Your task to perform on an android device: Set the phone to "Do not disturb". Image 0: 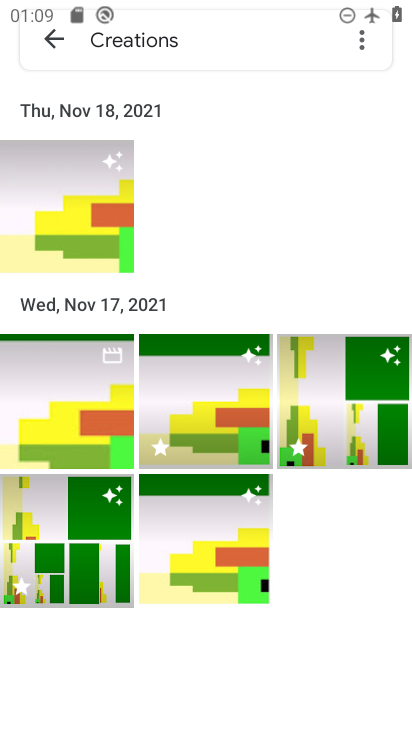
Step 0: press home button
Your task to perform on an android device: Set the phone to "Do not disturb". Image 1: 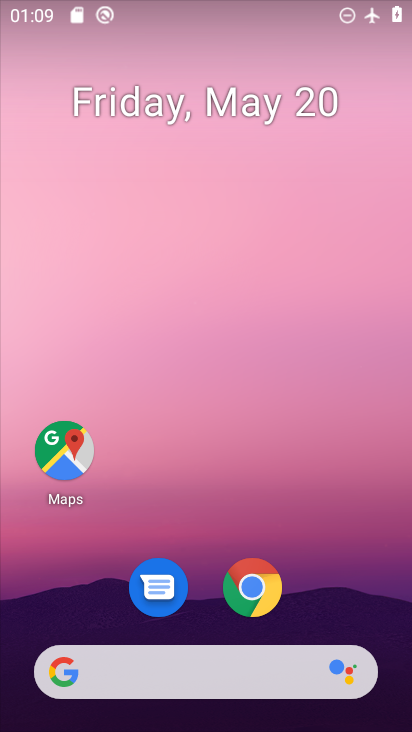
Step 1: drag from (378, 584) to (376, 195)
Your task to perform on an android device: Set the phone to "Do not disturb". Image 2: 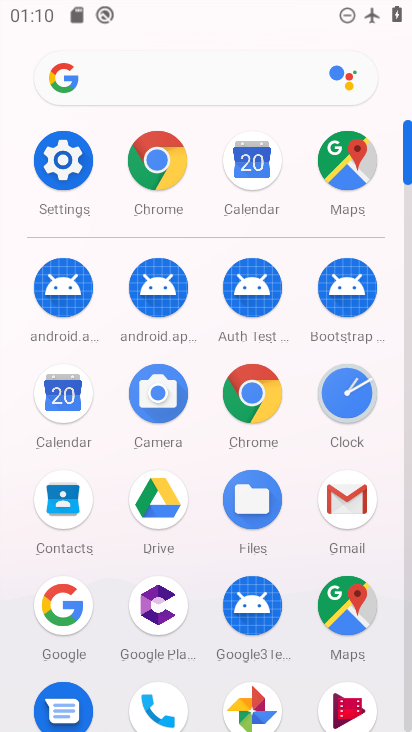
Step 2: click (63, 200)
Your task to perform on an android device: Set the phone to "Do not disturb". Image 3: 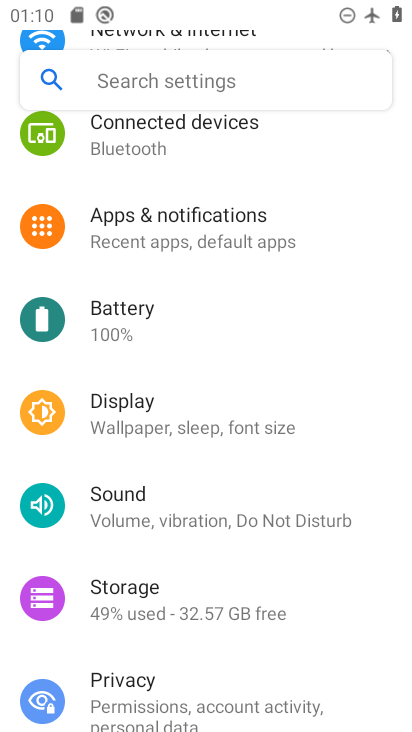
Step 3: drag from (367, 453) to (369, 325)
Your task to perform on an android device: Set the phone to "Do not disturb". Image 4: 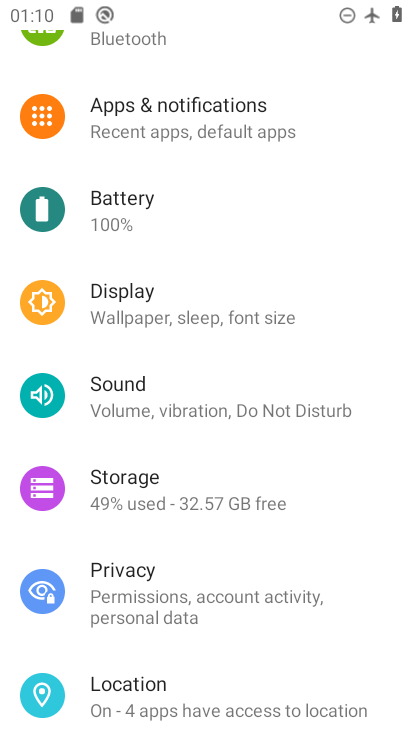
Step 4: drag from (373, 529) to (372, 423)
Your task to perform on an android device: Set the phone to "Do not disturb". Image 5: 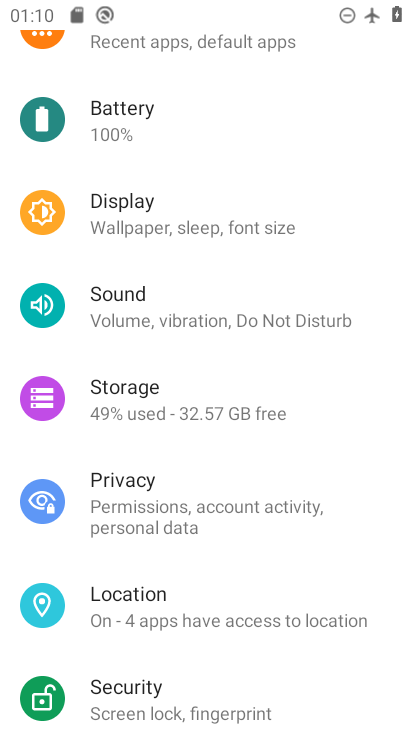
Step 5: drag from (373, 568) to (360, 374)
Your task to perform on an android device: Set the phone to "Do not disturb". Image 6: 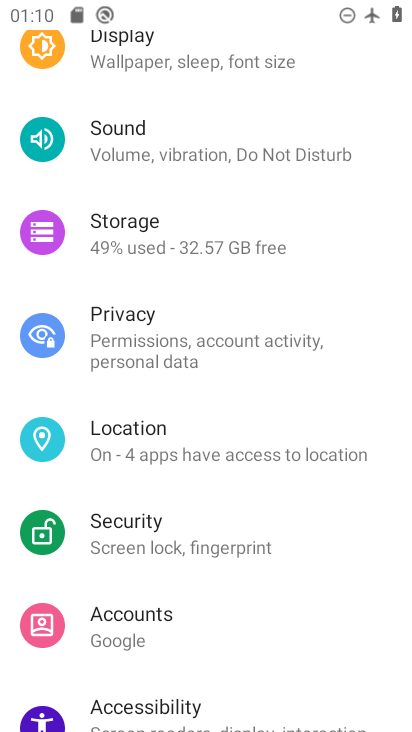
Step 6: drag from (349, 571) to (349, 392)
Your task to perform on an android device: Set the phone to "Do not disturb". Image 7: 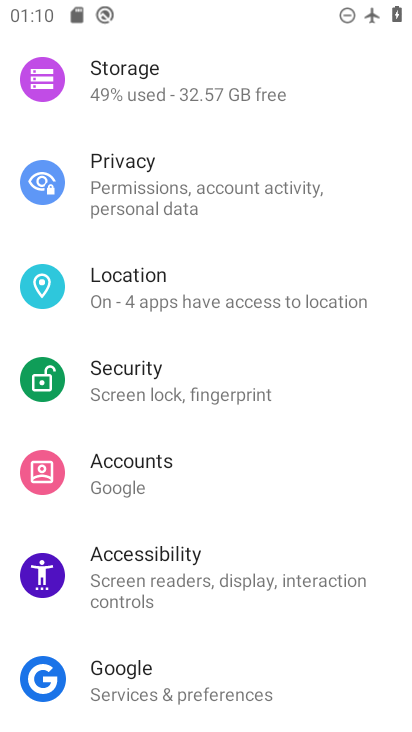
Step 7: drag from (352, 577) to (352, 423)
Your task to perform on an android device: Set the phone to "Do not disturb". Image 8: 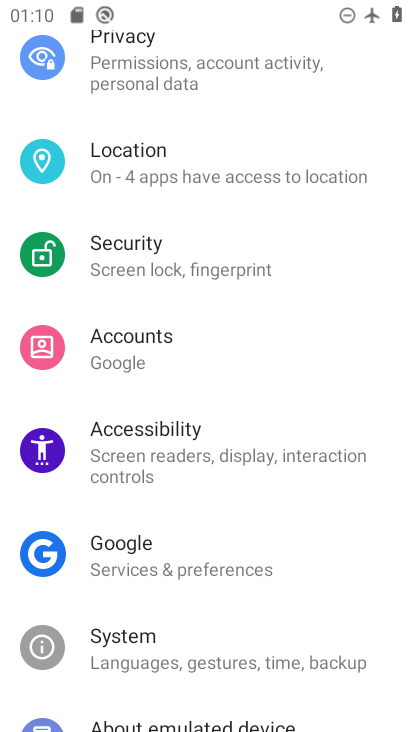
Step 8: drag from (359, 586) to (355, 405)
Your task to perform on an android device: Set the phone to "Do not disturb". Image 9: 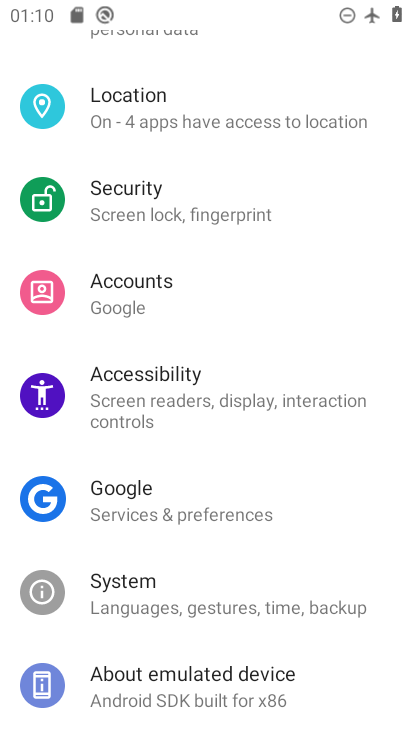
Step 9: drag from (352, 267) to (346, 413)
Your task to perform on an android device: Set the phone to "Do not disturb". Image 10: 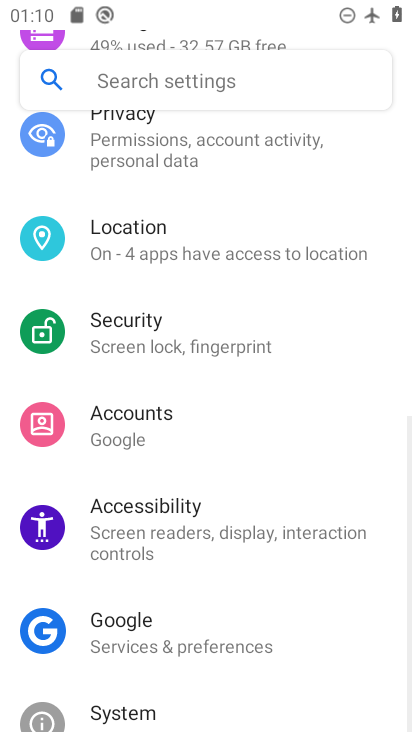
Step 10: drag from (346, 299) to (345, 420)
Your task to perform on an android device: Set the phone to "Do not disturb". Image 11: 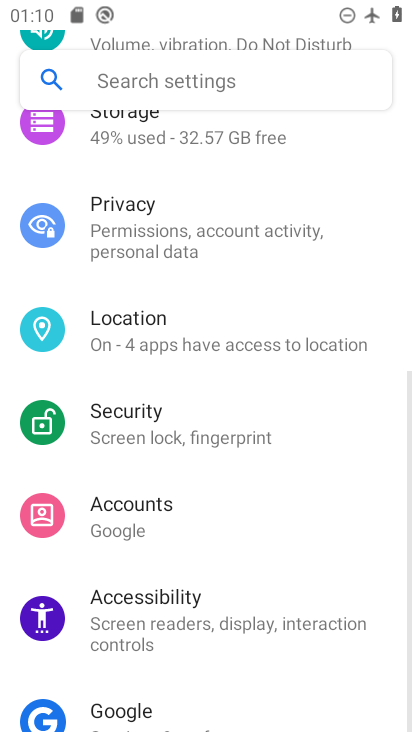
Step 11: drag from (343, 259) to (345, 373)
Your task to perform on an android device: Set the phone to "Do not disturb". Image 12: 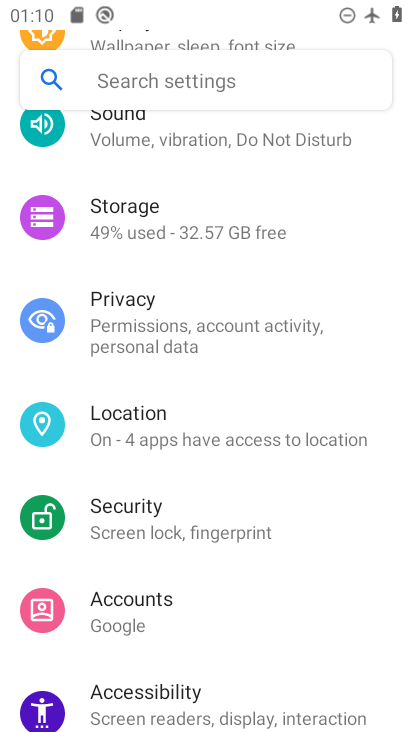
Step 12: drag from (349, 262) to (354, 347)
Your task to perform on an android device: Set the phone to "Do not disturb". Image 13: 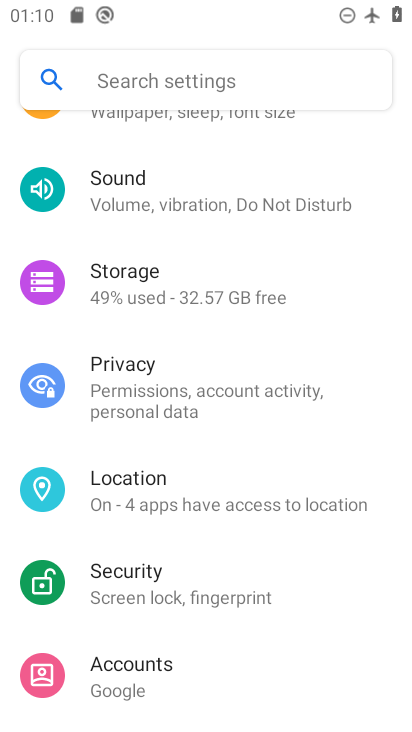
Step 13: drag from (354, 271) to (353, 351)
Your task to perform on an android device: Set the phone to "Do not disturb". Image 14: 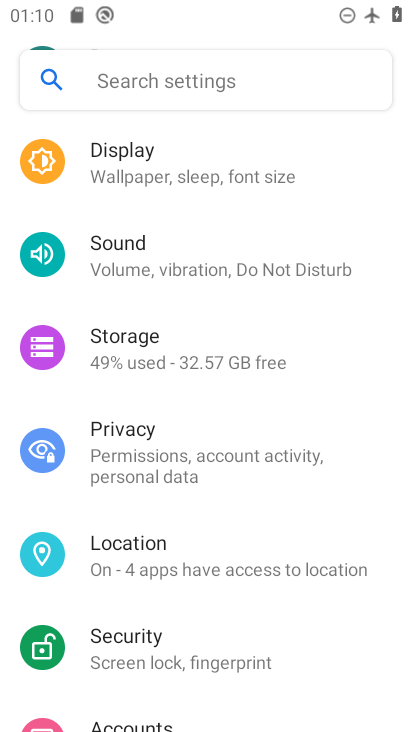
Step 14: drag from (353, 217) to (353, 306)
Your task to perform on an android device: Set the phone to "Do not disturb". Image 15: 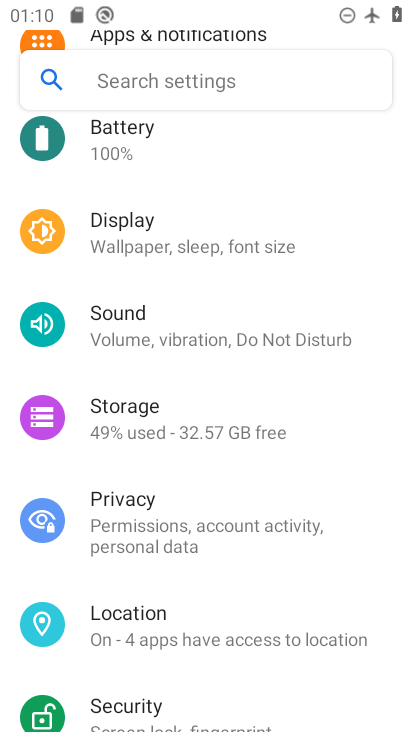
Step 15: drag from (347, 210) to (347, 294)
Your task to perform on an android device: Set the phone to "Do not disturb". Image 16: 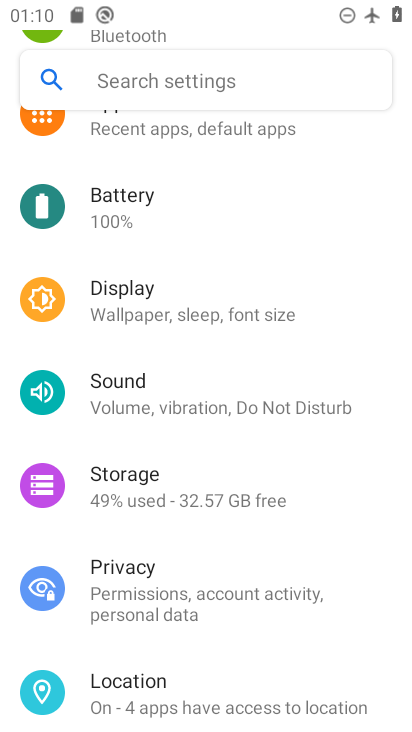
Step 16: drag from (347, 258) to (346, 319)
Your task to perform on an android device: Set the phone to "Do not disturb". Image 17: 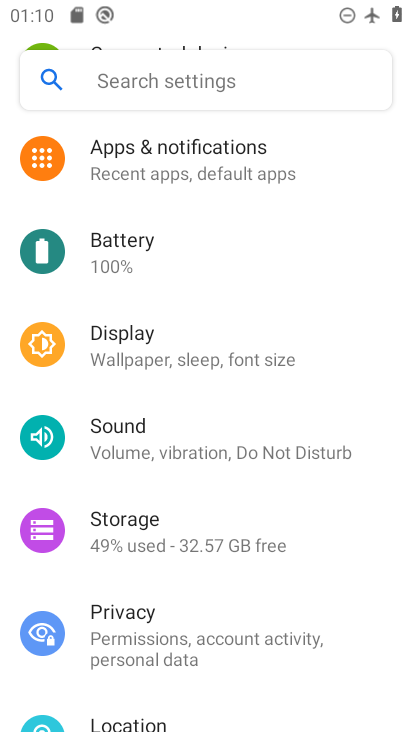
Step 17: drag from (338, 203) to (337, 281)
Your task to perform on an android device: Set the phone to "Do not disturb". Image 18: 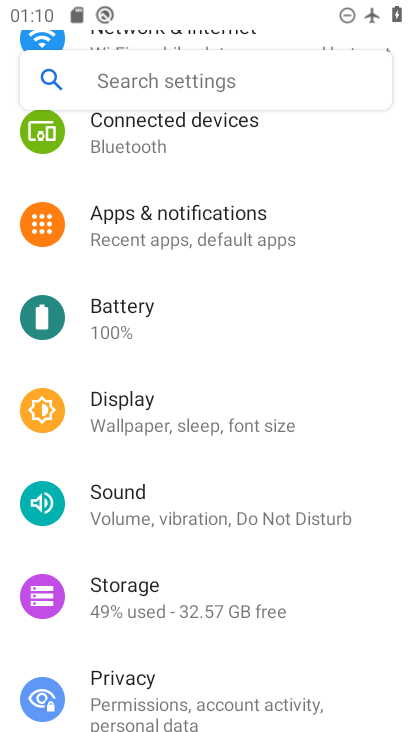
Step 18: drag from (339, 192) to (341, 275)
Your task to perform on an android device: Set the phone to "Do not disturb". Image 19: 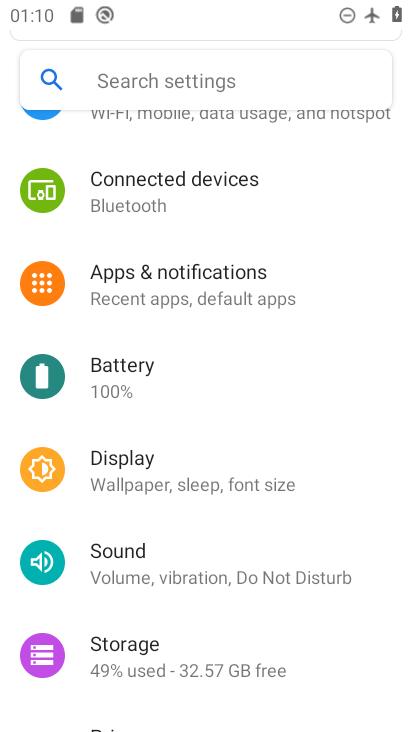
Step 19: drag from (341, 196) to (341, 276)
Your task to perform on an android device: Set the phone to "Do not disturb". Image 20: 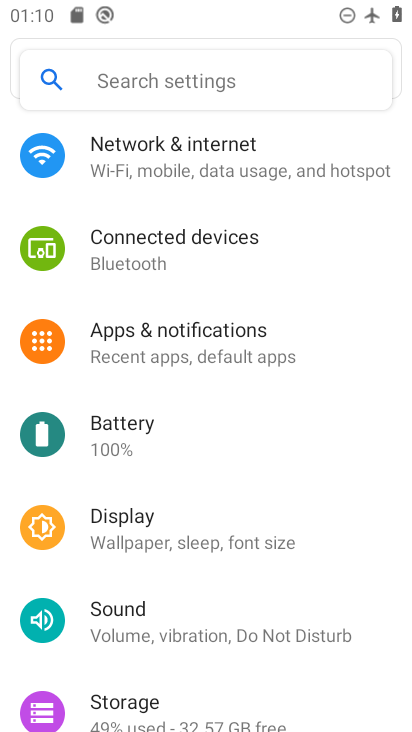
Step 20: click (227, 617)
Your task to perform on an android device: Set the phone to "Do not disturb". Image 21: 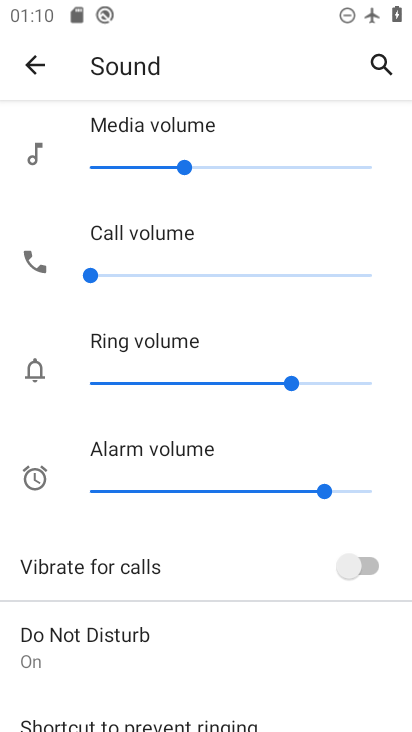
Step 21: task complete